Your task to perform on an android device: toggle show notifications on the lock screen Image 0: 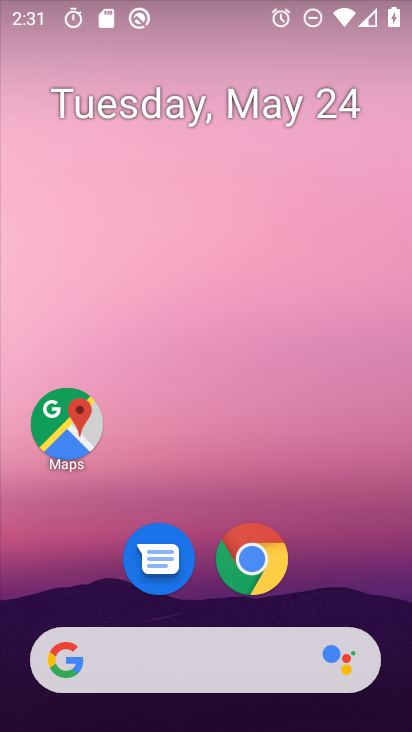
Step 0: drag from (394, 673) to (342, 207)
Your task to perform on an android device: toggle show notifications on the lock screen Image 1: 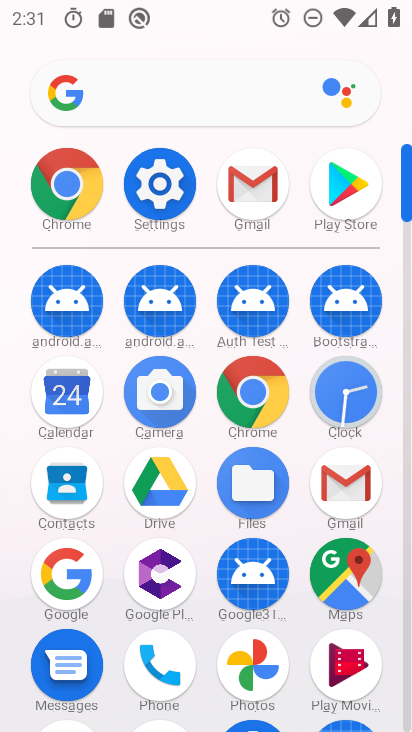
Step 1: click (171, 188)
Your task to perform on an android device: toggle show notifications on the lock screen Image 2: 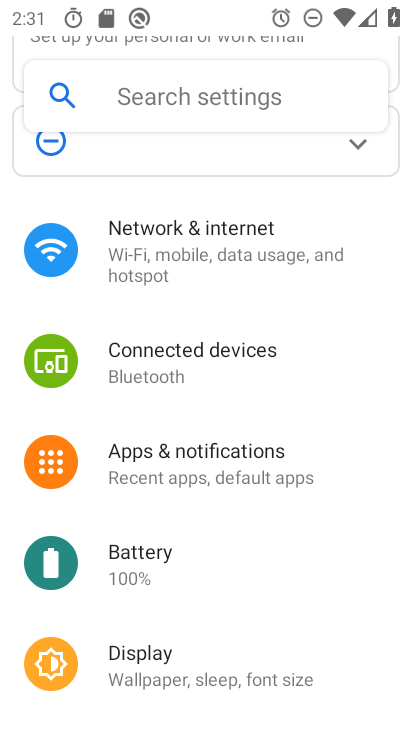
Step 2: click (130, 241)
Your task to perform on an android device: toggle show notifications on the lock screen Image 3: 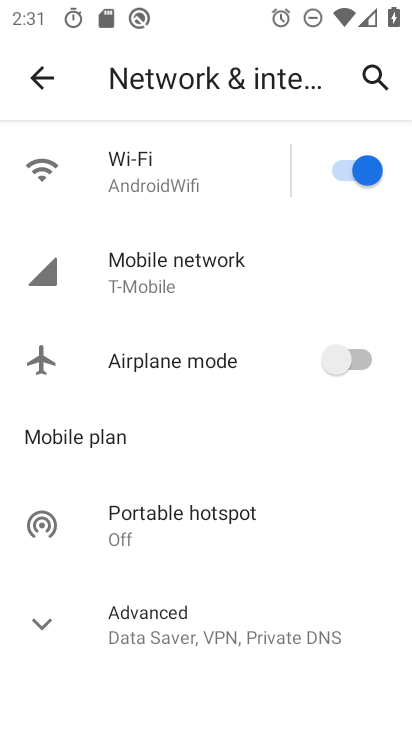
Step 3: press back button
Your task to perform on an android device: toggle show notifications on the lock screen Image 4: 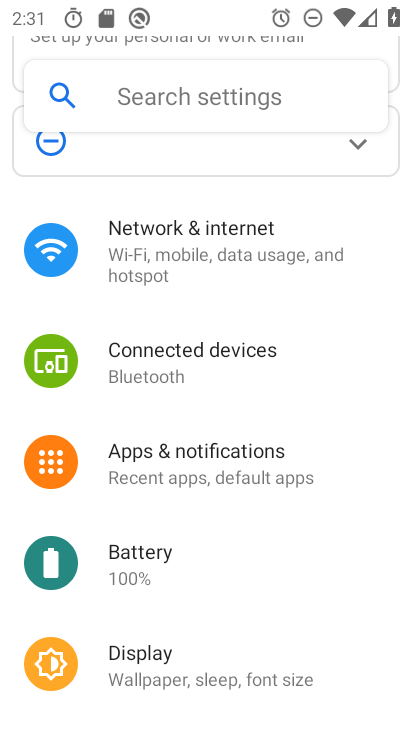
Step 4: click (211, 478)
Your task to perform on an android device: toggle show notifications on the lock screen Image 5: 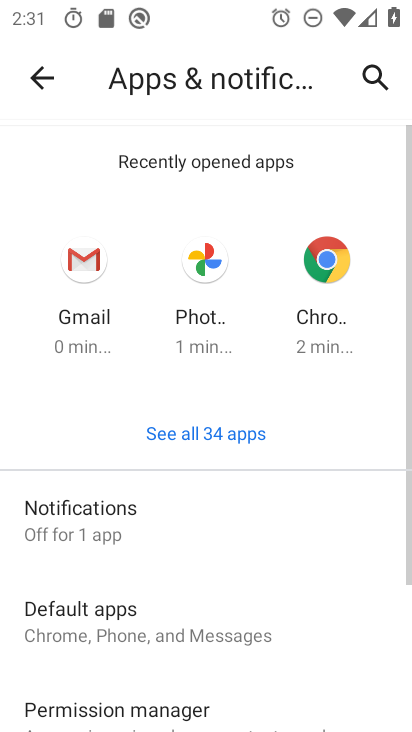
Step 5: drag from (277, 701) to (223, 430)
Your task to perform on an android device: toggle show notifications on the lock screen Image 6: 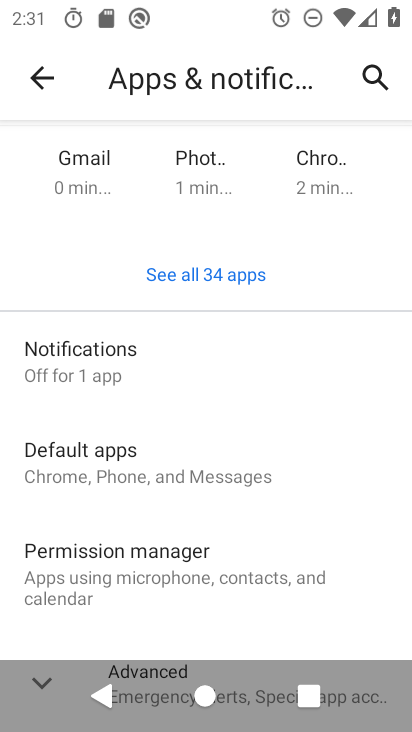
Step 6: click (82, 358)
Your task to perform on an android device: toggle show notifications on the lock screen Image 7: 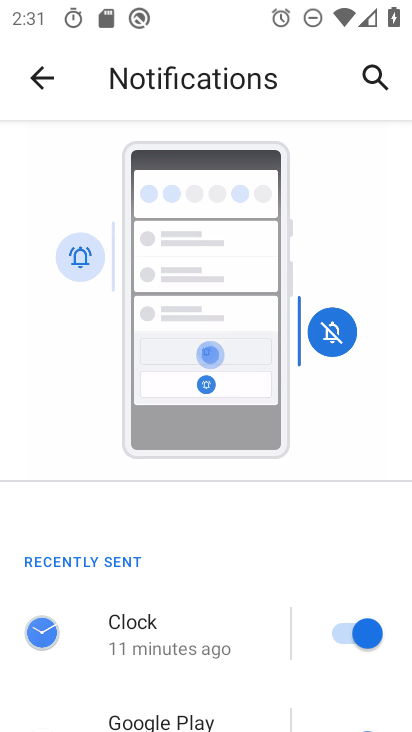
Step 7: drag from (300, 716) to (276, 571)
Your task to perform on an android device: toggle show notifications on the lock screen Image 8: 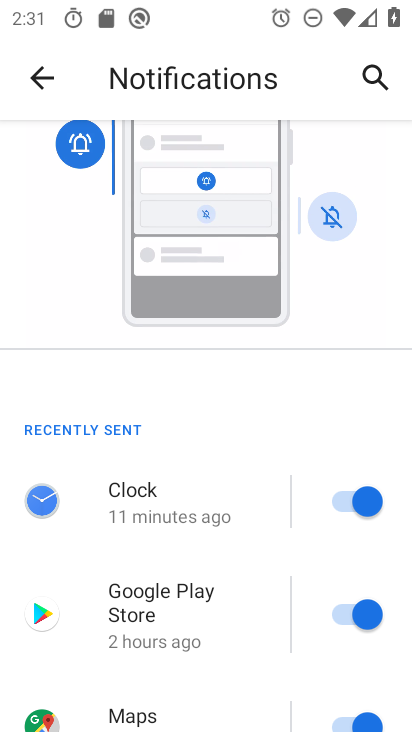
Step 8: drag from (289, 724) to (243, 139)
Your task to perform on an android device: toggle show notifications on the lock screen Image 9: 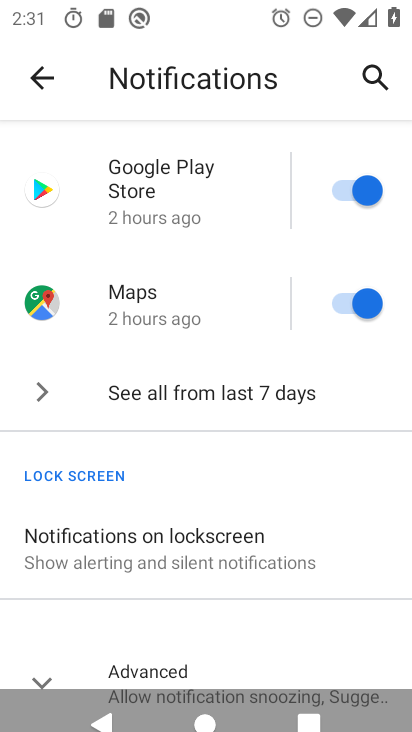
Step 9: click (172, 539)
Your task to perform on an android device: toggle show notifications on the lock screen Image 10: 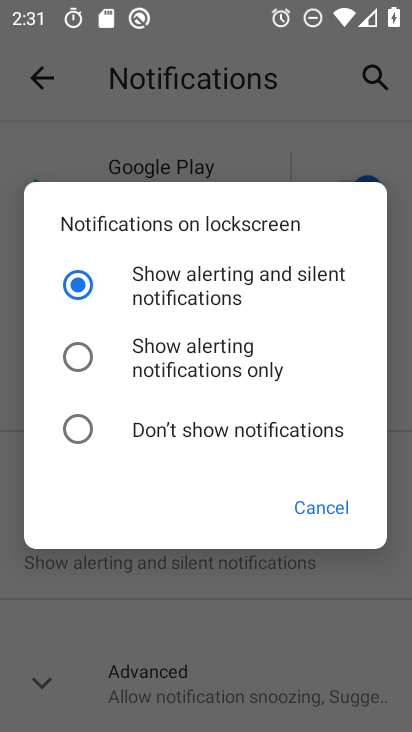
Step 10: click (68, 349)
Your task to perform on an android device: toggle show notifications on the lock screen Image 11: 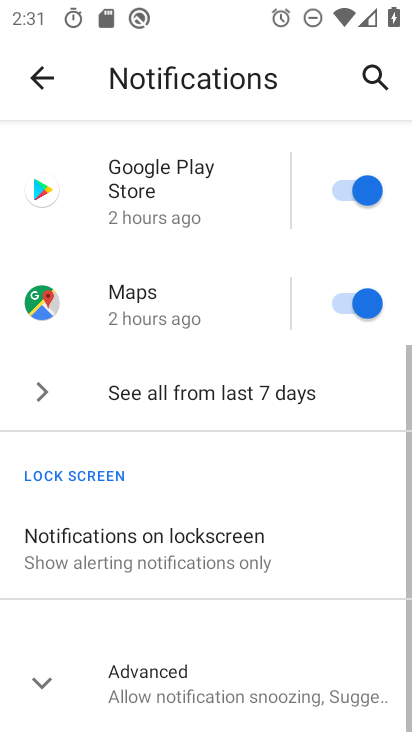
Step 11: task complete